Your task to perform on an android device: turn on wifi Image 0: 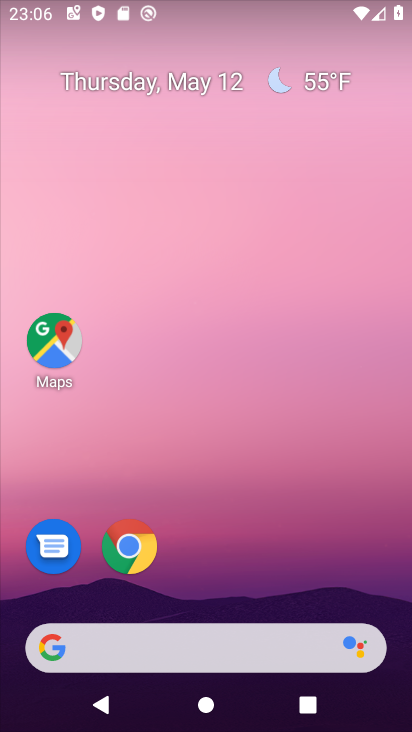
Step 0: drag from (192, 588) to (228, 232)
Your task to perform on an android device: turn on wifi Image 1: 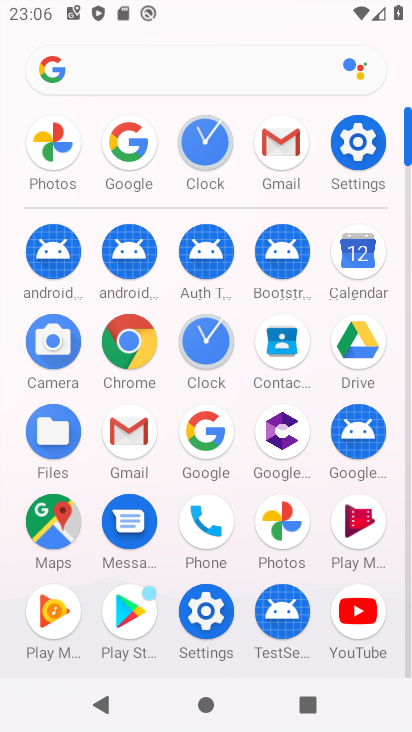
Step 1: click (361, 149)
Your task to perform on an android device: turn on wifi Image 2: 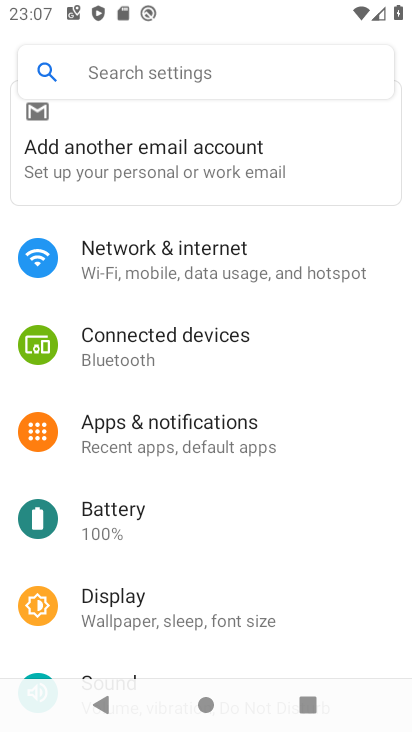
Step 2: click (196, 258)
Your task to perform on an android device: turn on wifi Image 3: 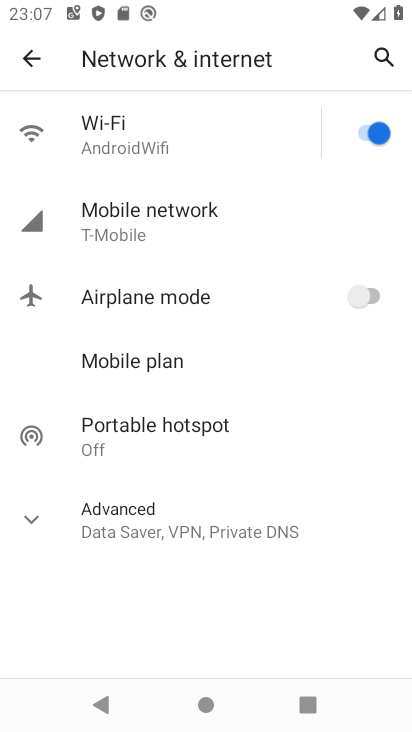
Step 3: task complete